Your task to perform on an android device: turn off wifi Image 0: 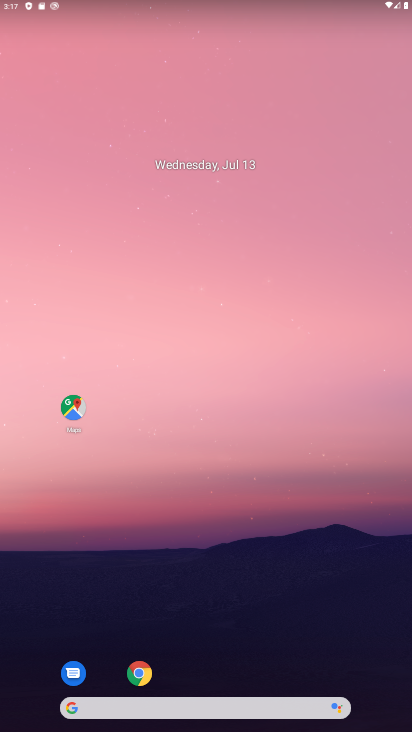
Step 0: drag from (245, 730) to (247, 270)
Your task to perform on an android device: turn off wifi Image 1: 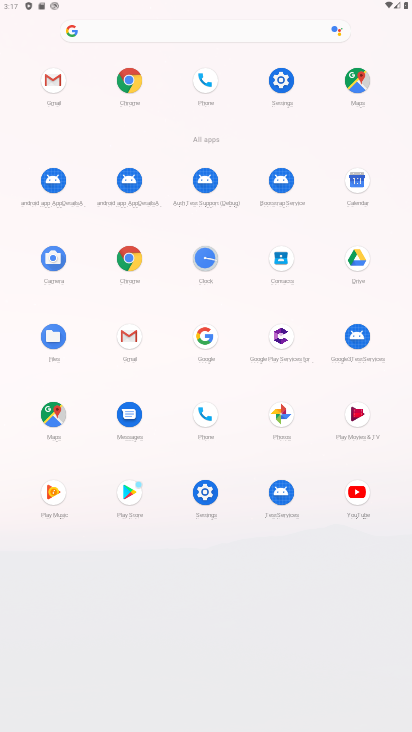
Step 1: click (281, 77)
Your task to perform on an android device: turn off wifi Image 2: 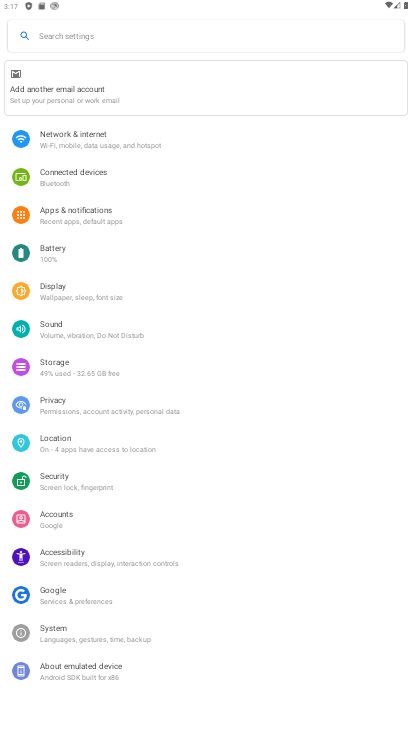
Step 2: click (61, 141)
Your task to perform on an android device: turn off wifi Image 3: 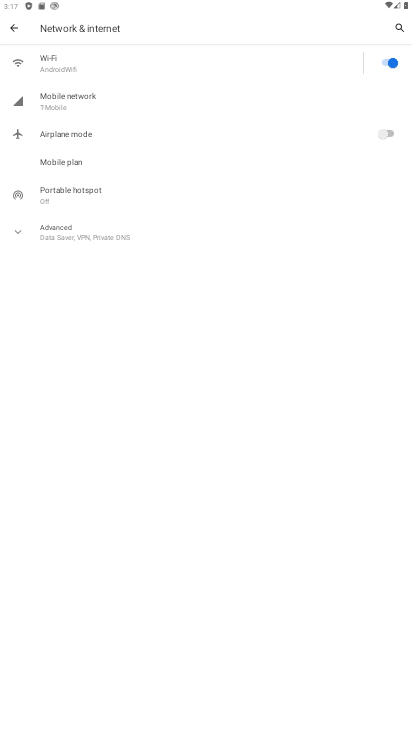
Step 3: click (384, 58)
Your task to perform on an android device: turn off wifi Image 4: 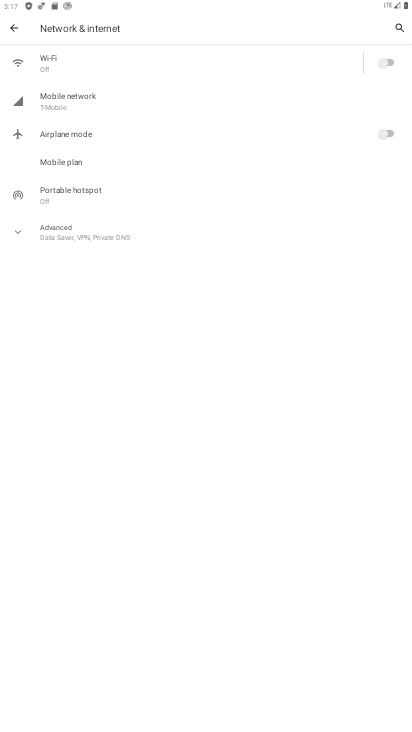
Step 4: task complete